Your task to perform on an android device: Clear all items from cart on ebay. Add "alienware aurora" to the cart on ebay, then select checkout. Image 0: 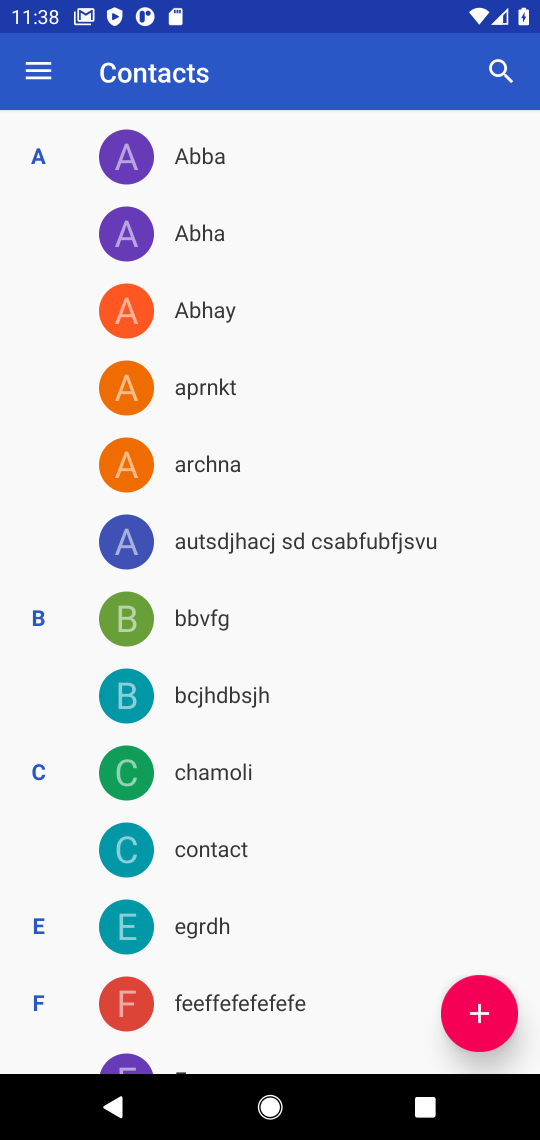
Step 0: press home button
Your task to perform on an android device: Clear all items from cart on ebay. Add "alienware aurora" to the cart on ebay, then select checkout. Image 1: 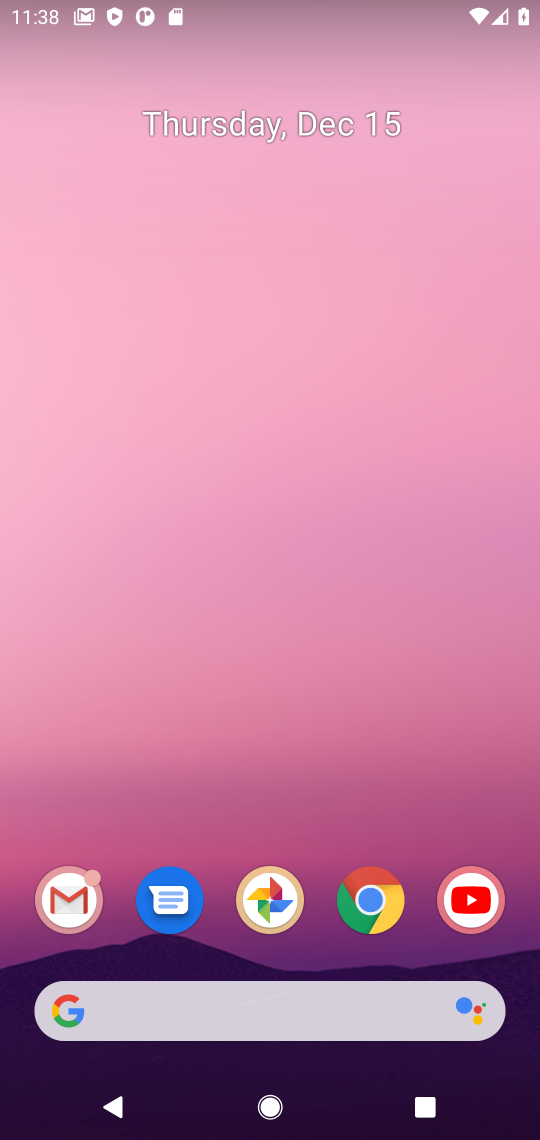
Step 1: click (383, 888)
Your task to perform on an android device: Clear all items from cart on ebay. Add "alienware aurora" to the cart on ebay, then select checkout. Image 2: 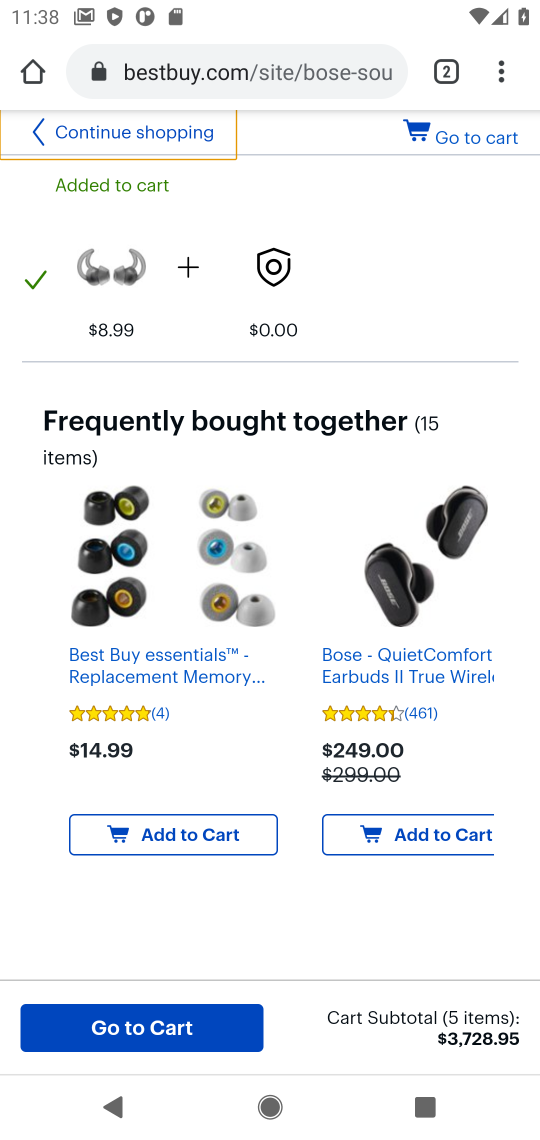
Step 2: click (290, 74)
Your task to perform on an android device: Clear all items from cart on ebay. Add "alienware aurora" to the cart on ebay, then select checkout. Image 3: 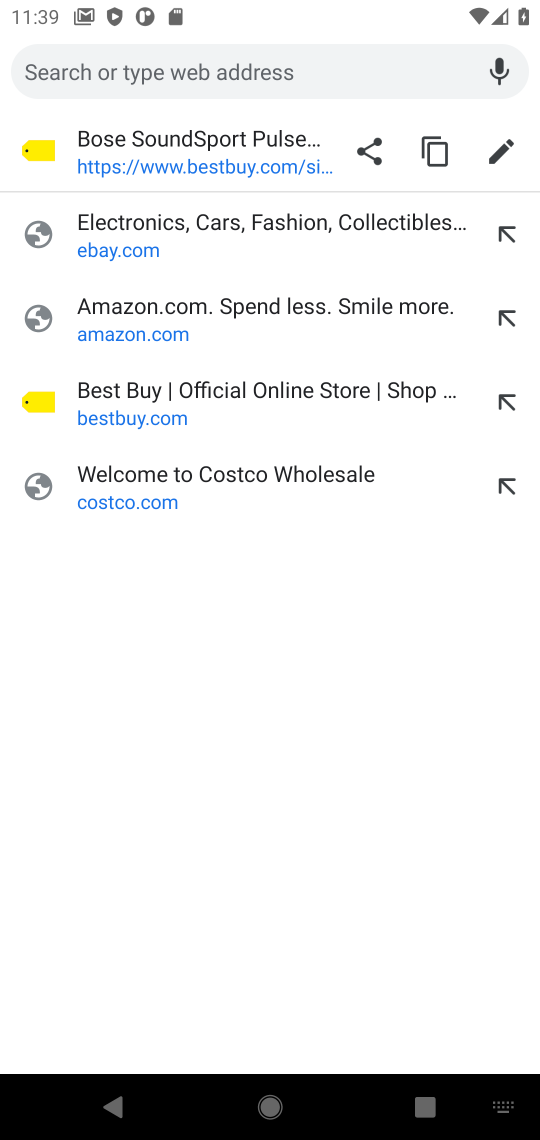
Step 3: click (236, 215)
Your task to perform on an android device: Clear all items from cart on ebay. Add "alienware aurora" to the cart on ebay, then select checkout. Image 4: 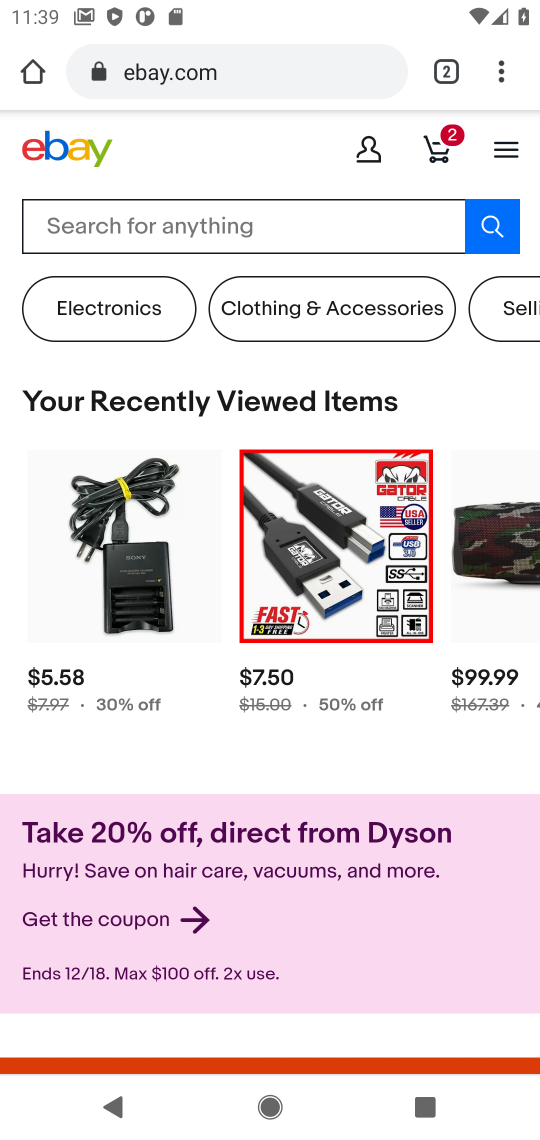
Step 4: click (442, 150)
Your task to perform on an android device: Clear all items from cart on ebay. Add "alienware aurora" to the cart on ebay, then select checkout. Image 5: 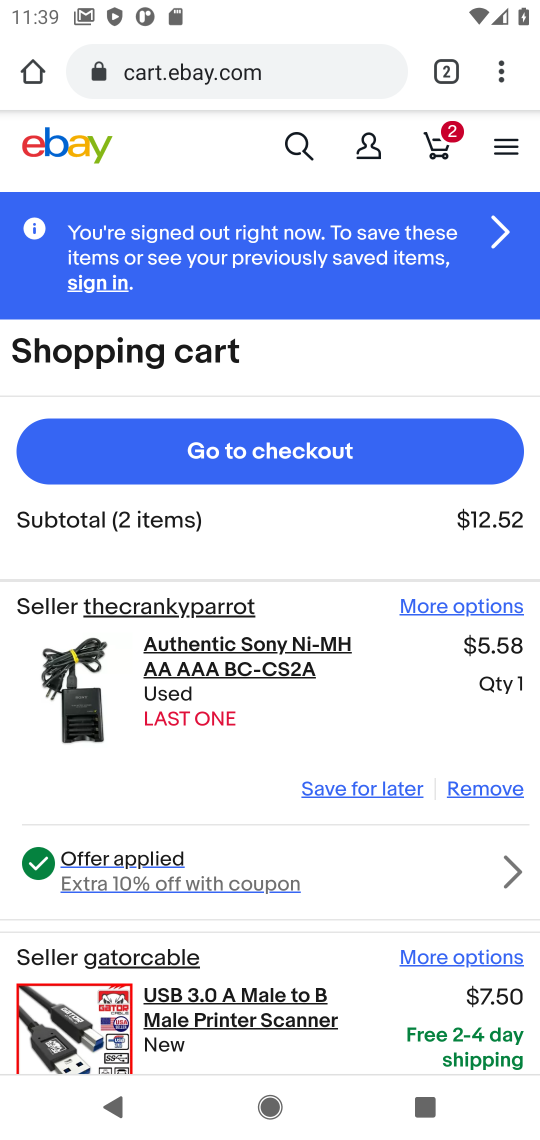
Step 5: click (484, 791)
Your task to perform on an android device: Clear all items from cart on ebay. Add "alienware aurora" to the cart on ebay, then select checkout. Image 6: 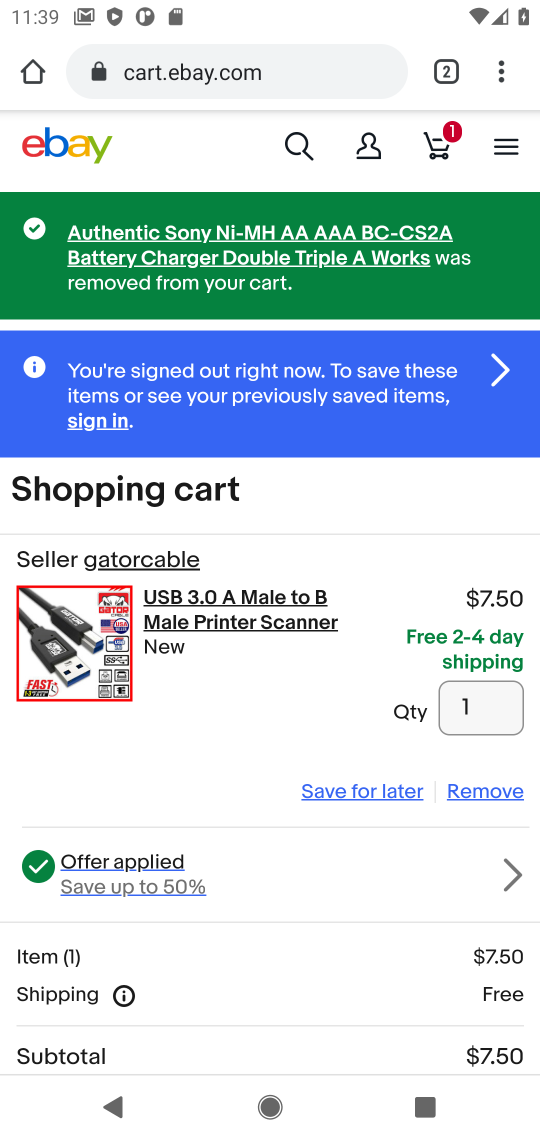
Step 6: click (484, 791)
Your task to perform on an android device: Clear all items from cart on ebay. Add "alienware aurora" to the cart on ebay, then select checkout. Image 7: 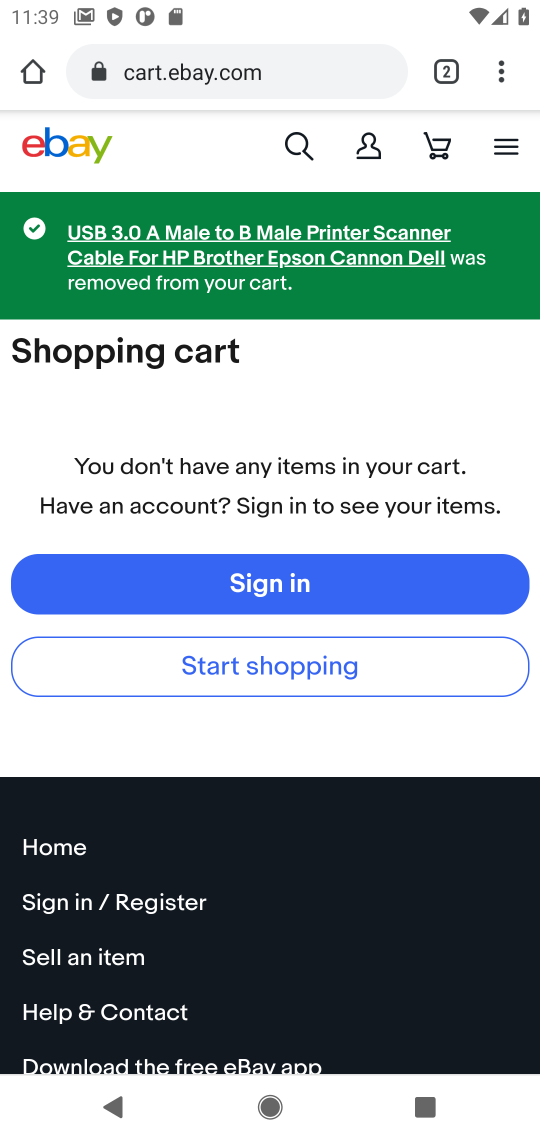
Step 7: click (298, 149)
Your task to perform on an android device: Clear all items from cart on ebay. Add "alienware aurora" to the cart on ebay, then select checkout. Image 8: 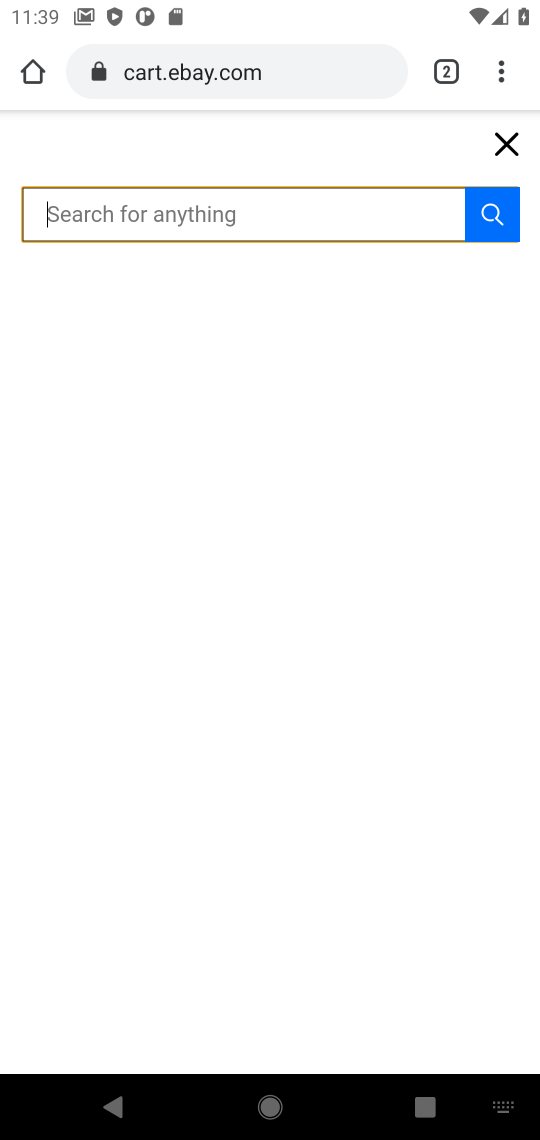
Step 8: press enter
Your task to perform on an android device: Clear all items from cart on ebay. Add "alienware aurora" to the cart on ebay, then select checkout. Image 9: 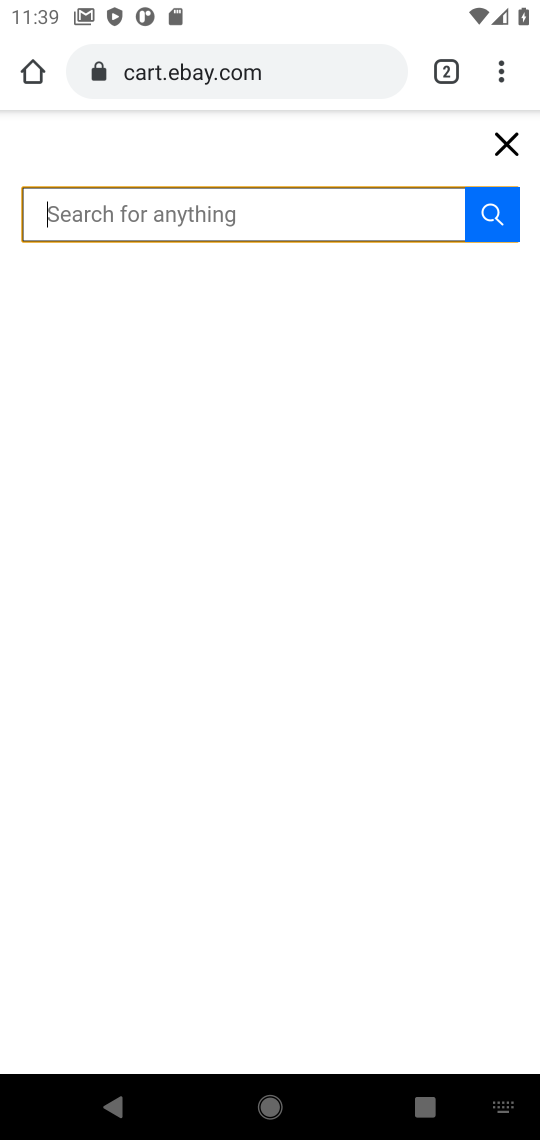
Step 9: type "alienware aurora"
Your task to perform on an android device: Clear all items from cart on ebay. Add "alienware aurora" to the cart on ebay, then select checkout. Image 10: 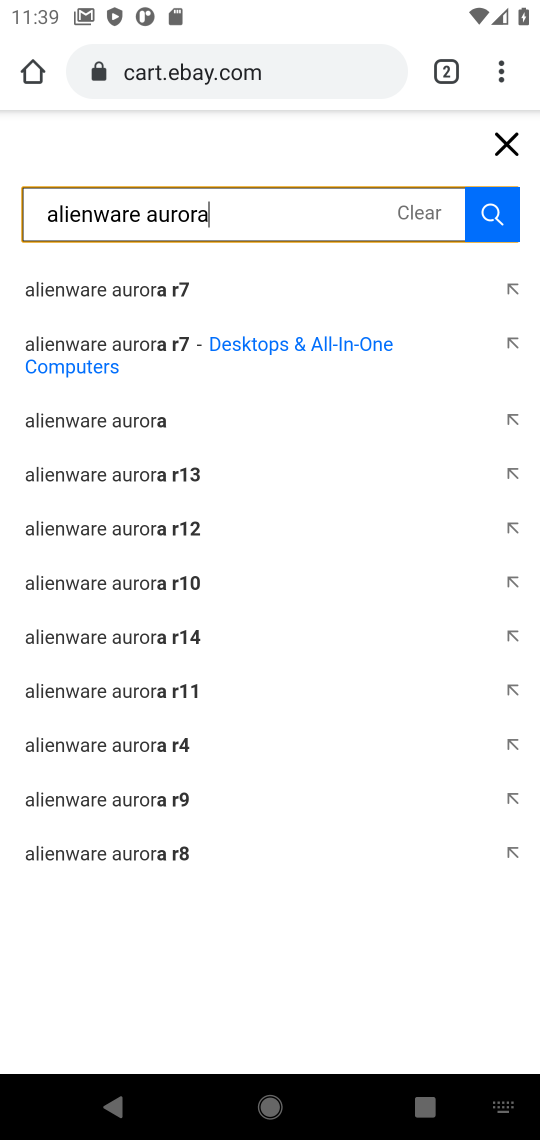
Step 10: click (102, 418)
Your task to perform on an android device: Clear all items from cart on ebay. Add "alienware aurora" to the cart on ebay, then select checkout. Image 11: 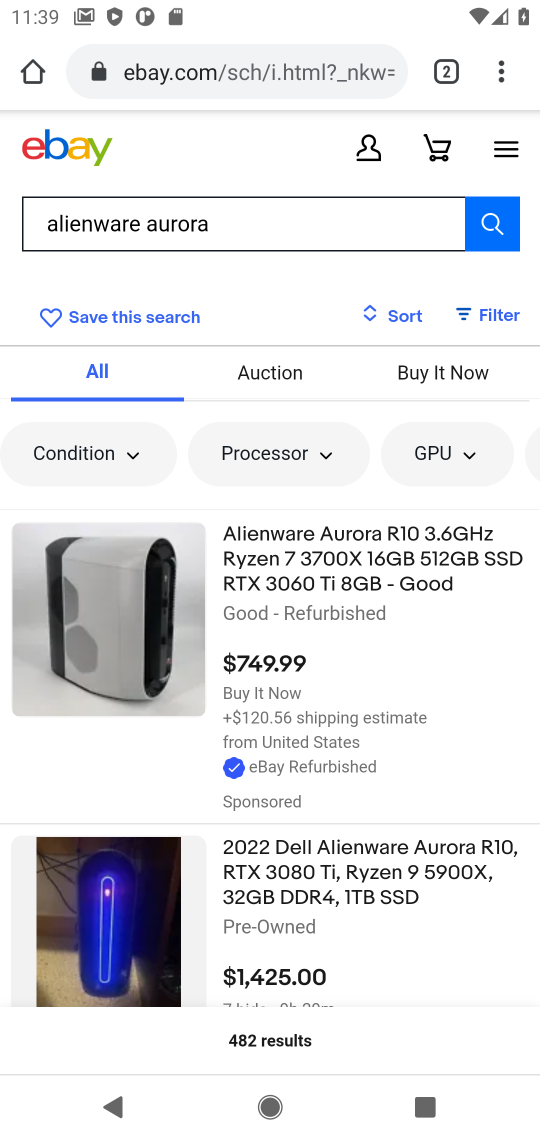
Step 11: click (88, 623)
Your task to perform on an android device: Clear all items from cart on ebay. Add "alienware aurora" to the cart on ebay, then select checkout. Image 12: 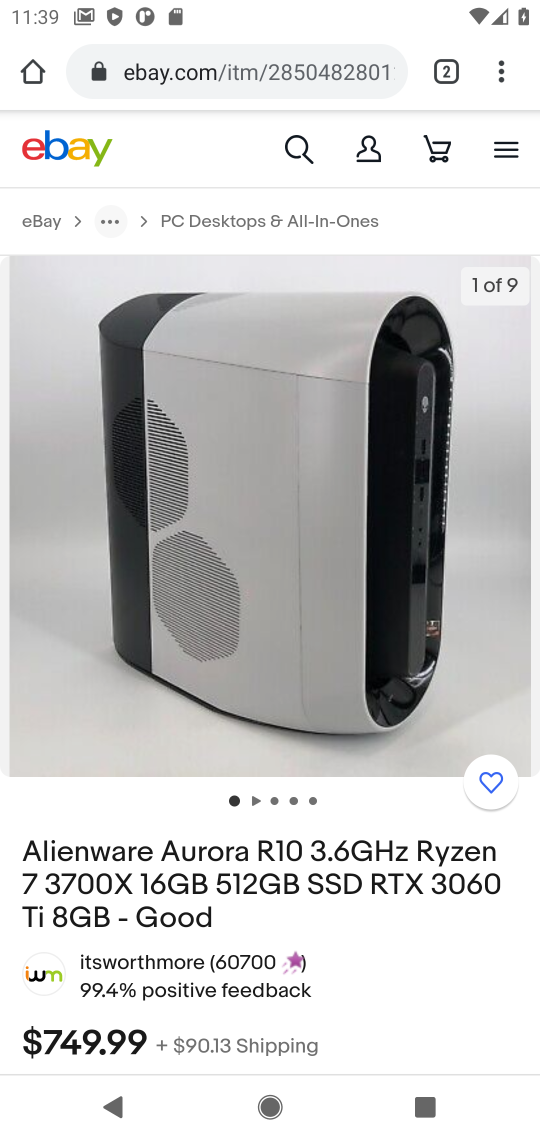
Step 12: drag from (374, 917) to (384, 341)
Your task to perform on an android device: Clear all items from cart on ebay. Add "alienware aurora" to the cart on ebay, then select checkout. Image 13: 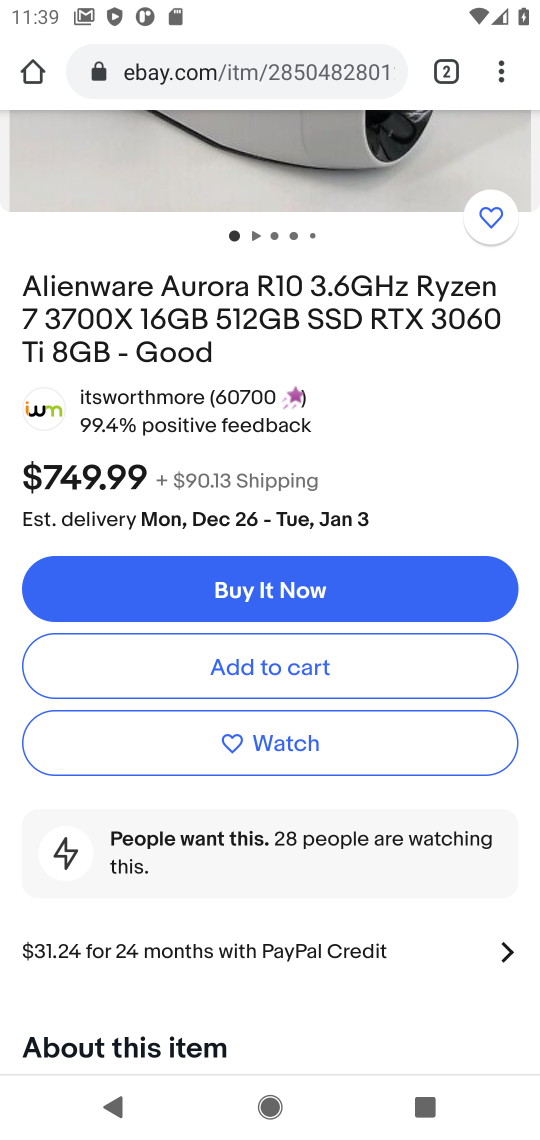
Step 13: click (264, 666)
Your task to perform on an android device: Clear all items from cart on ebay. Add "alienware aurora" to the cart on ebay, then select checkout. Image 14: 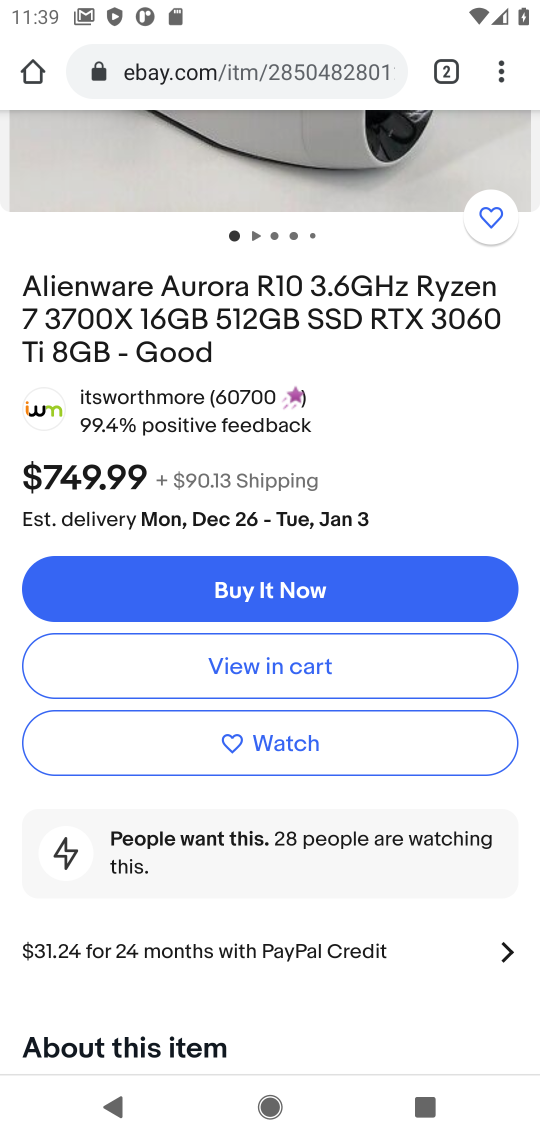
Step 14: click (264, 666)
Your task to perform on an android device: Clear all items from cart on ebay. Add "alienware aurora" to the cart on ebay, then select checkout. Image 15: 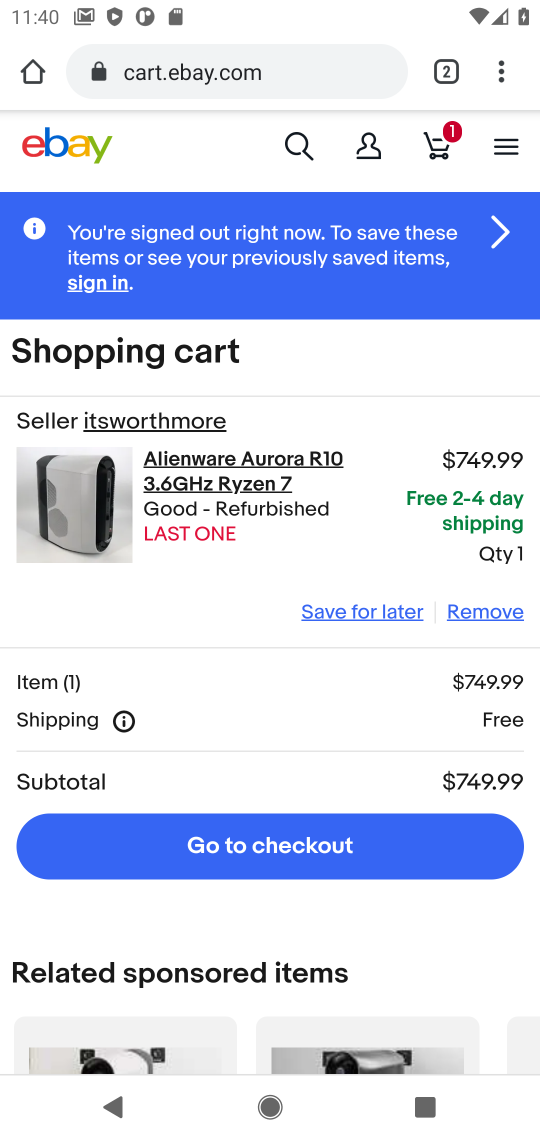
Step 15: click (263, 847)
Your task to perform on an android device: Clear all items from cart on ebay. Add "alienware aurora" to the cart on ebay, then select checkout. Image 16: 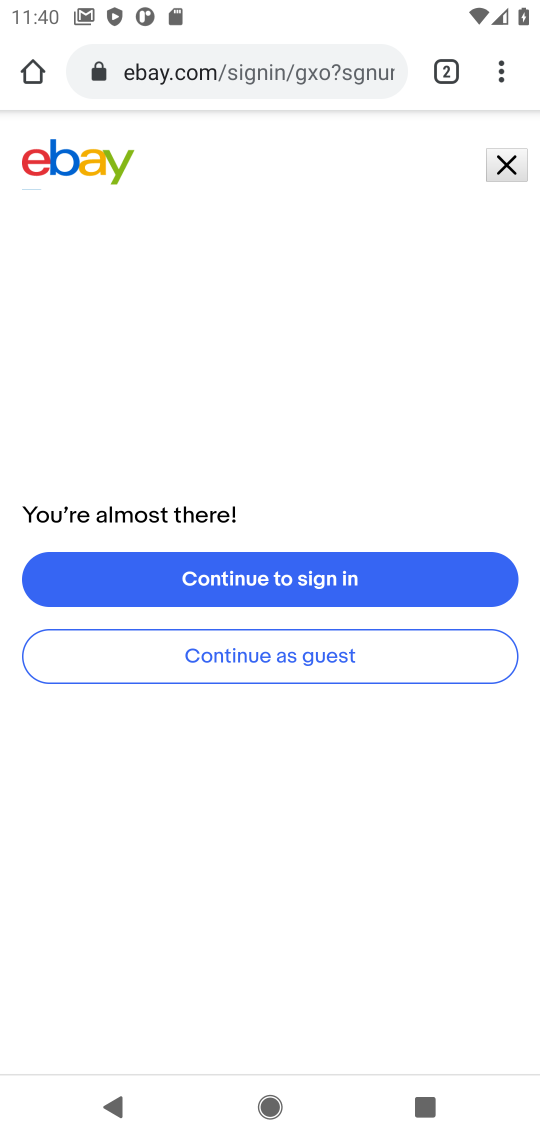
Step 16: task complete